Your task to perform on an android device: Show the shopping cart on target.com. Add logitech g903 to the cart on target.com Image 0: 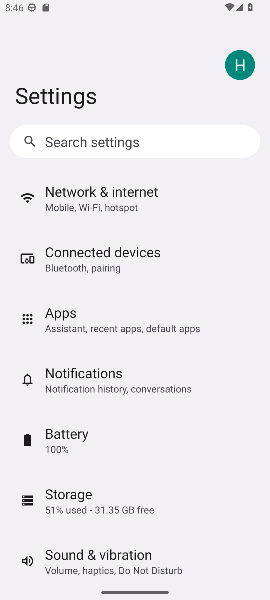
Step 0: press home button
Your task to perform on an android device: Show the shopping cart on target.com. Add logitech g903 to the cart on target.com Image 1: 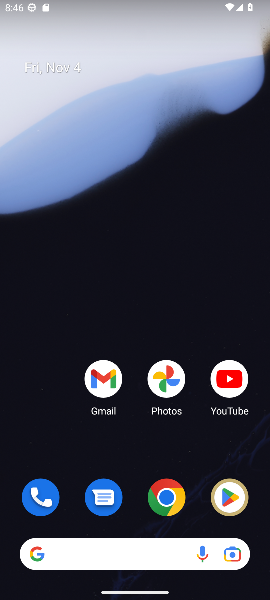
Step 1: click (165, 508)
Your task to perform on an android device: Show the shopping cart on target.com. Add logitech g903 to the cart on target.com Image 2: 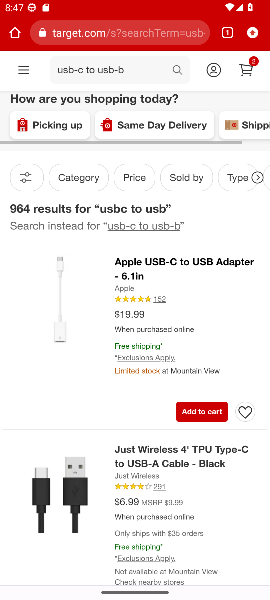
Step 2: click (245, 71)
Your task to perform on an android device: Show the shopping cart on target.com. Add logitech g903 to the cart on target.com Image 3: 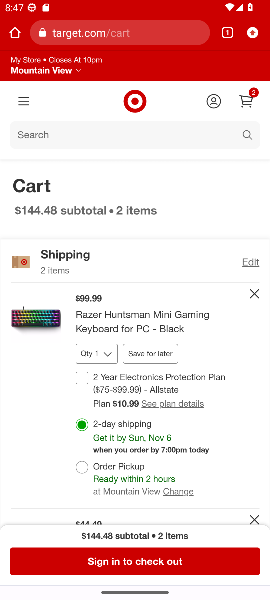
Step 3: click (107, 142)
Your task to perform on an android device: Show the shopping cart on target.com. Add logitech g903 to the cart on target.com Image 4: 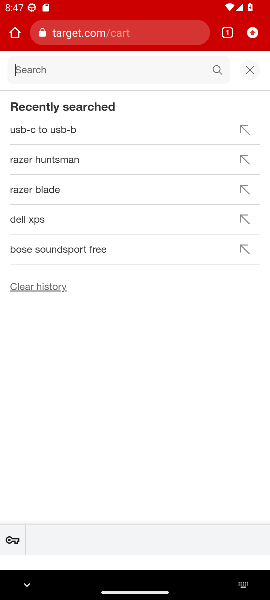
Step 4: type "logitech g903"
Your task to perform on an android device: Show the shopping cart on target.com. Add logitech g903 to the cart on target.com Image 5: 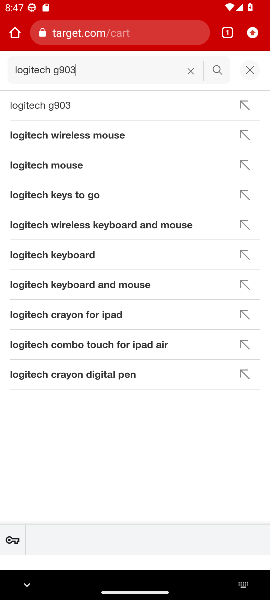
Step 5: click (60, 109)
Your task to perform on an android device: Show the shopping cart on target.com. Add logitech g903 to the cart on target.com Image 6: 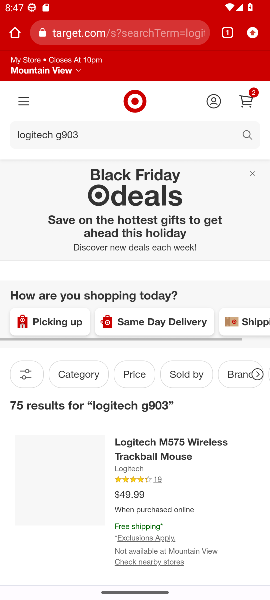
Step 6: task complete